Your task to perform on an android device: manage bookmarks in the chrome app Image 0: 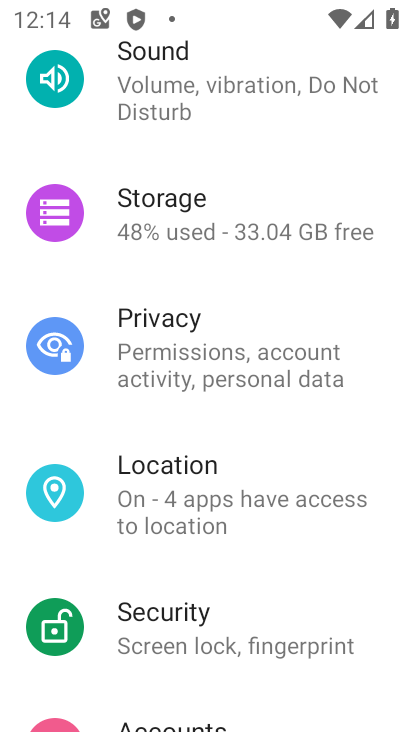
Step 0: press home button
Your task to perform on an android device: manage bookmarks in the chrome app Image 1: 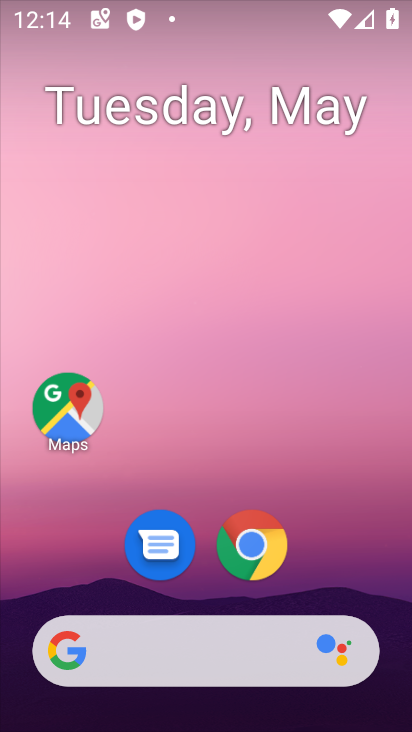
Step 1: click (256, 541)
Your task to perform on an android device: manage bookmarks in the chrome app Image 2: 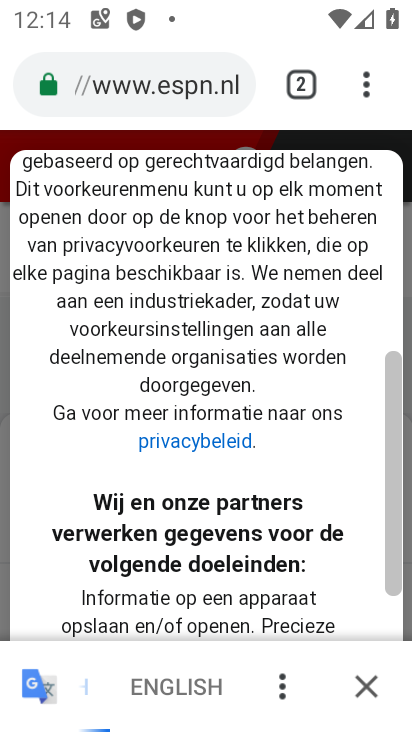
Step 2: click (377, 79)
Your task to perform on an android device: manage bookmarks in the chrome app Image 3: 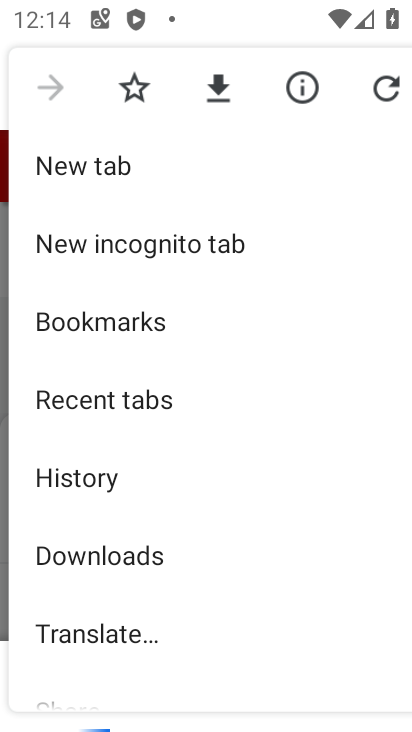
Step 3: click (131, 333)
Your task to perform on an android device: manage bookmarks in the chrome app Image 4: 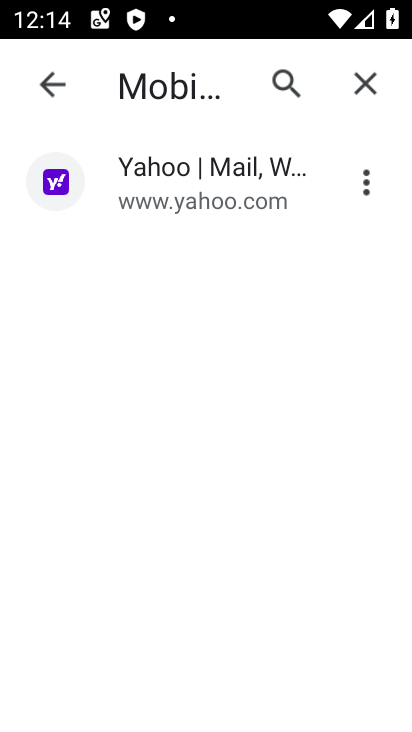
Step 4: click (372, 187)
Your task to perform on an android device: manage bookmarks in the chrome app Image 5: 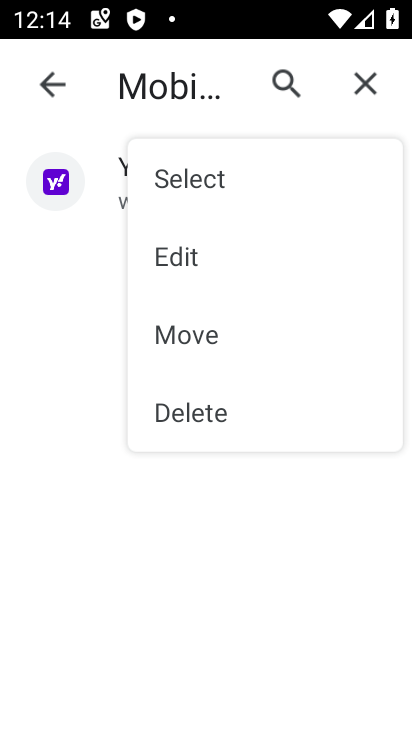
Step 5: click (189, 411)
Your task to perform on an android device: manage bookmarks in the chrome app Image 6: 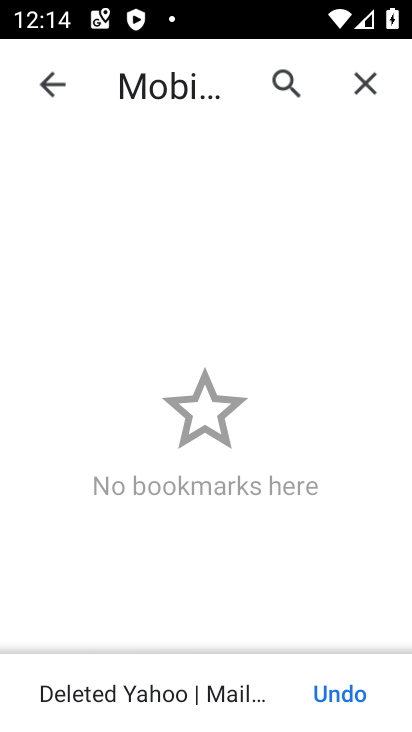
Step 6: task complete